Your task to perform on an android device: turn on the 24-hour format for clock Image 0: 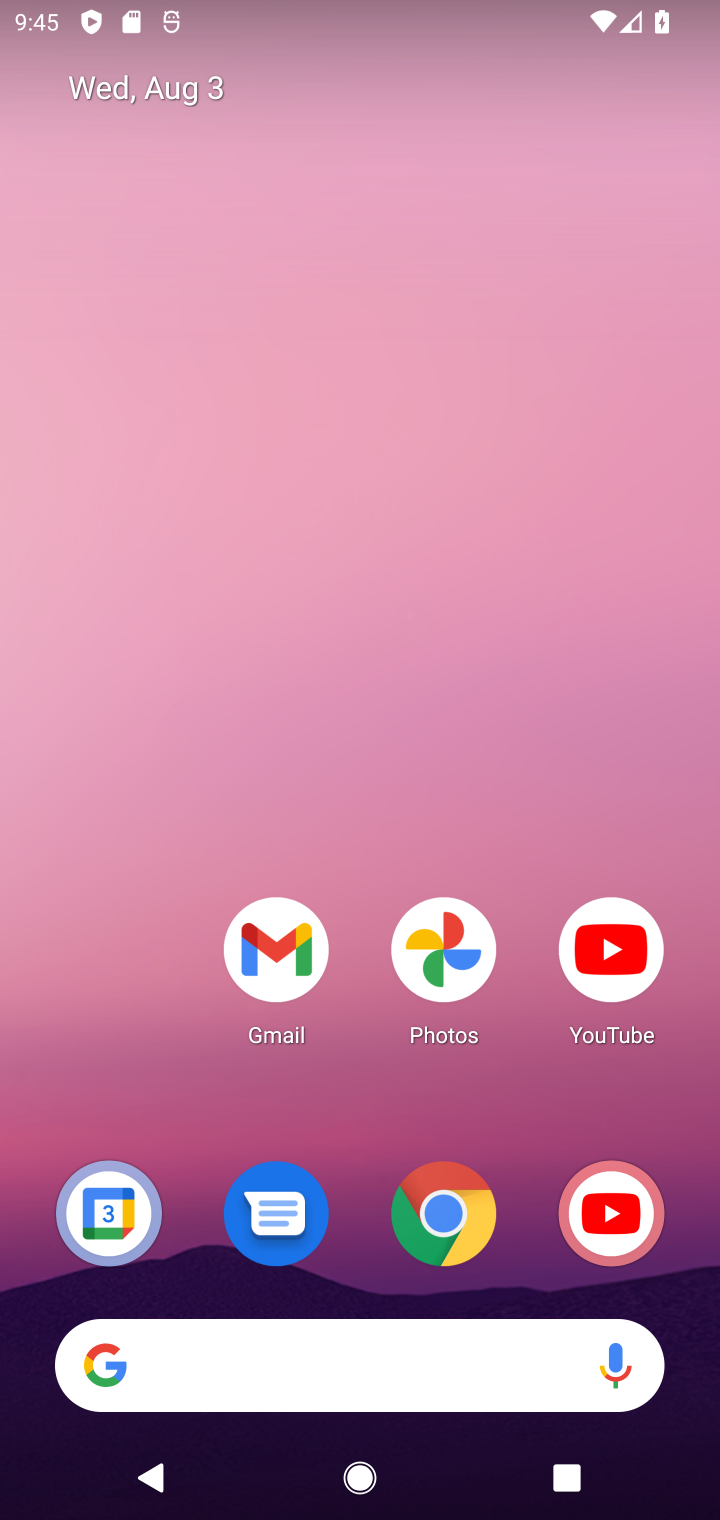
Step 0: drag from (519, 1046) to (516, 443)
Your task to perform on an android device: turn on the 24-hour format for clock Image 1: 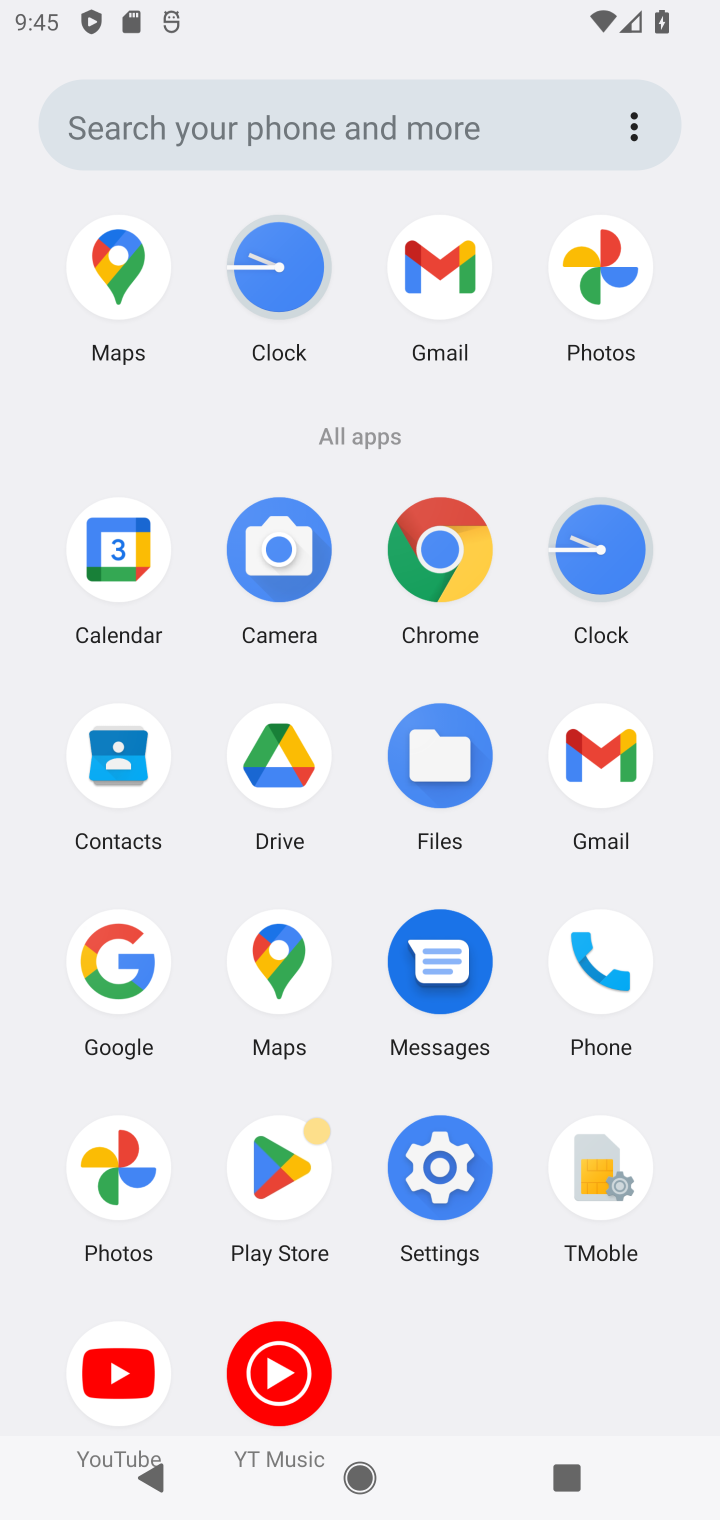
Step 1: click (604, 582)
Your task to perform on an android device: turn on the 24-hour format for clock Image 2: 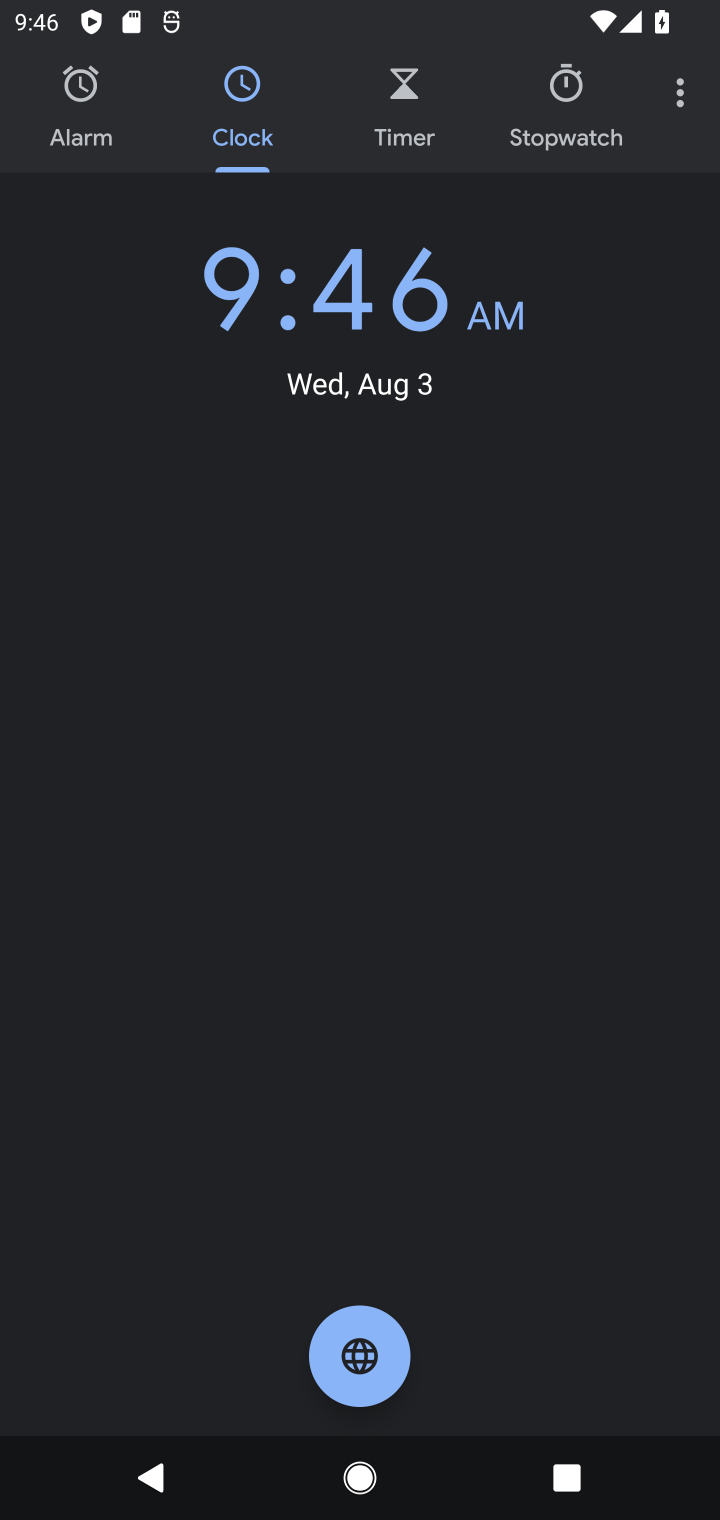
Step 2: click (689, 106)
Your task to perform on an android device: turn on the 24-hour format for clock Image 3: 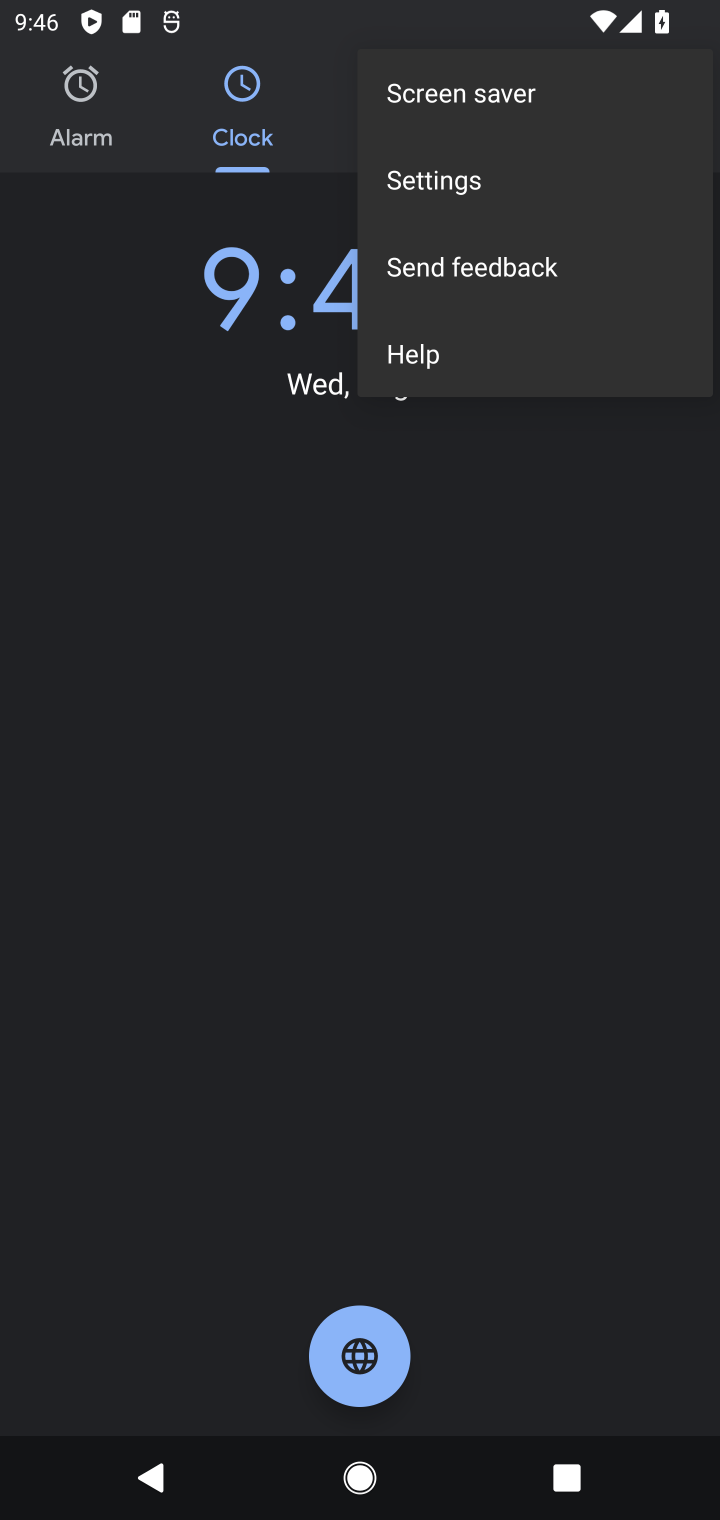
Step 3: click (500, 195)
Your task to perform on an android device: turn on the 24-hour format for clock Image 4: 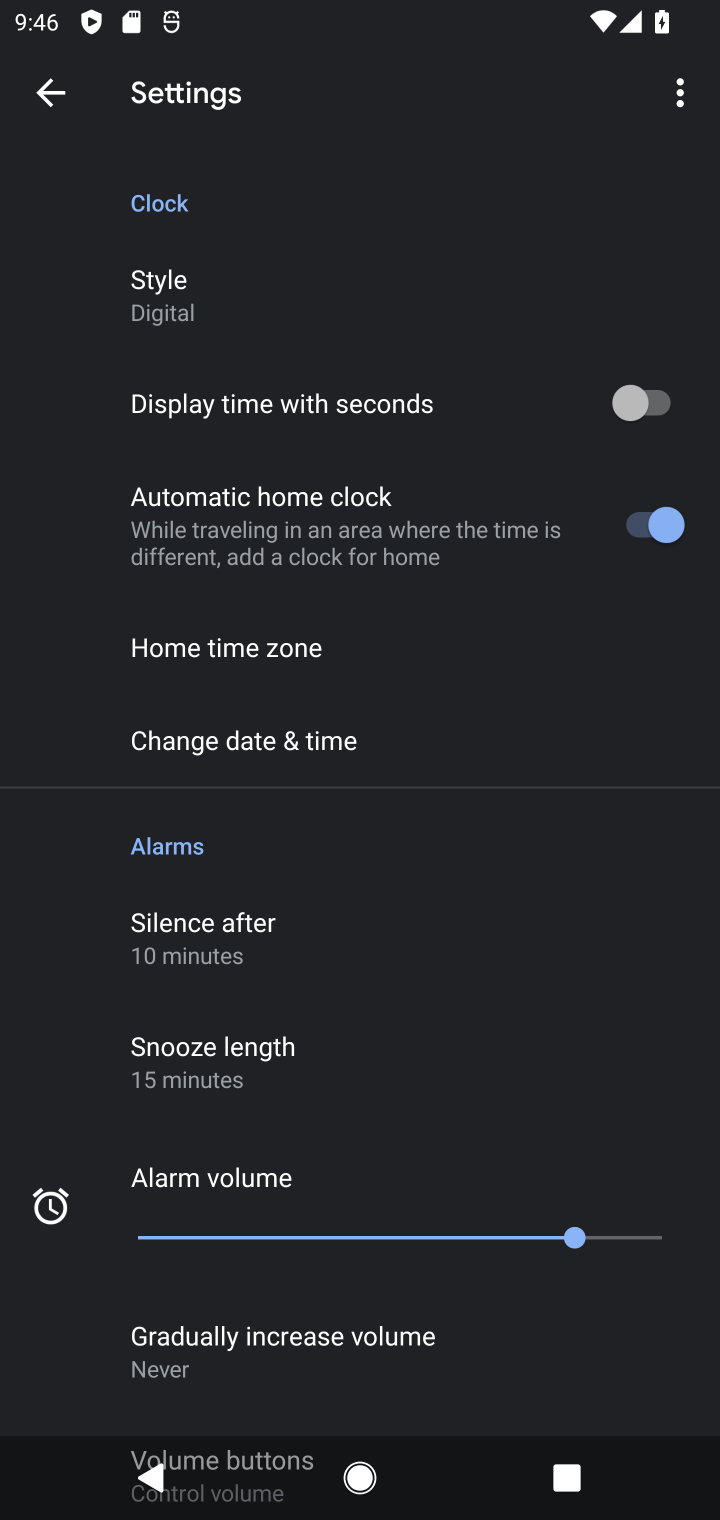
Step 4: click (258, 758)
Your task to perform on an android device: turn on the 24-hour format for clock Image 5: 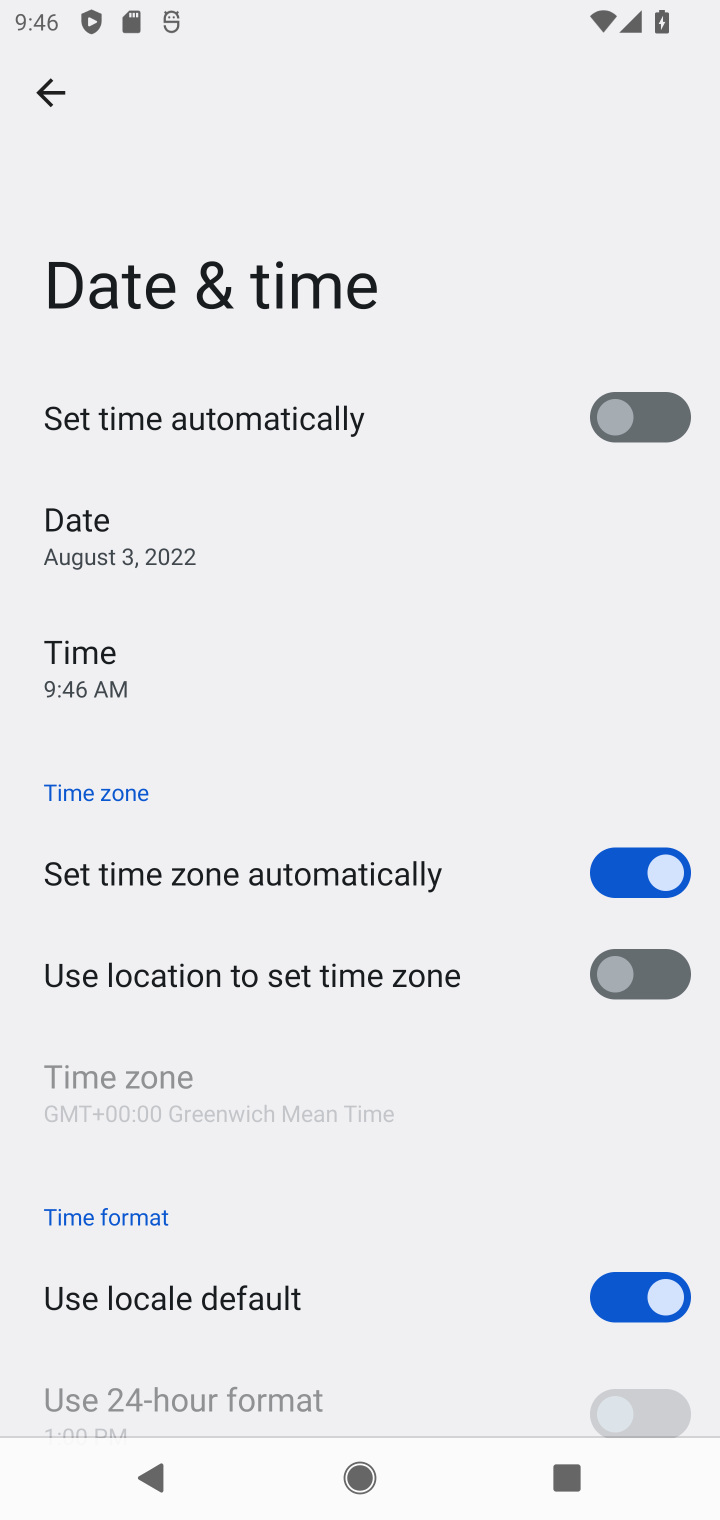
Step 5: drag from (421, 1167) to (374, 396)
Your task to perform on an android device: turn on the 24-hour format for clock Image 6: 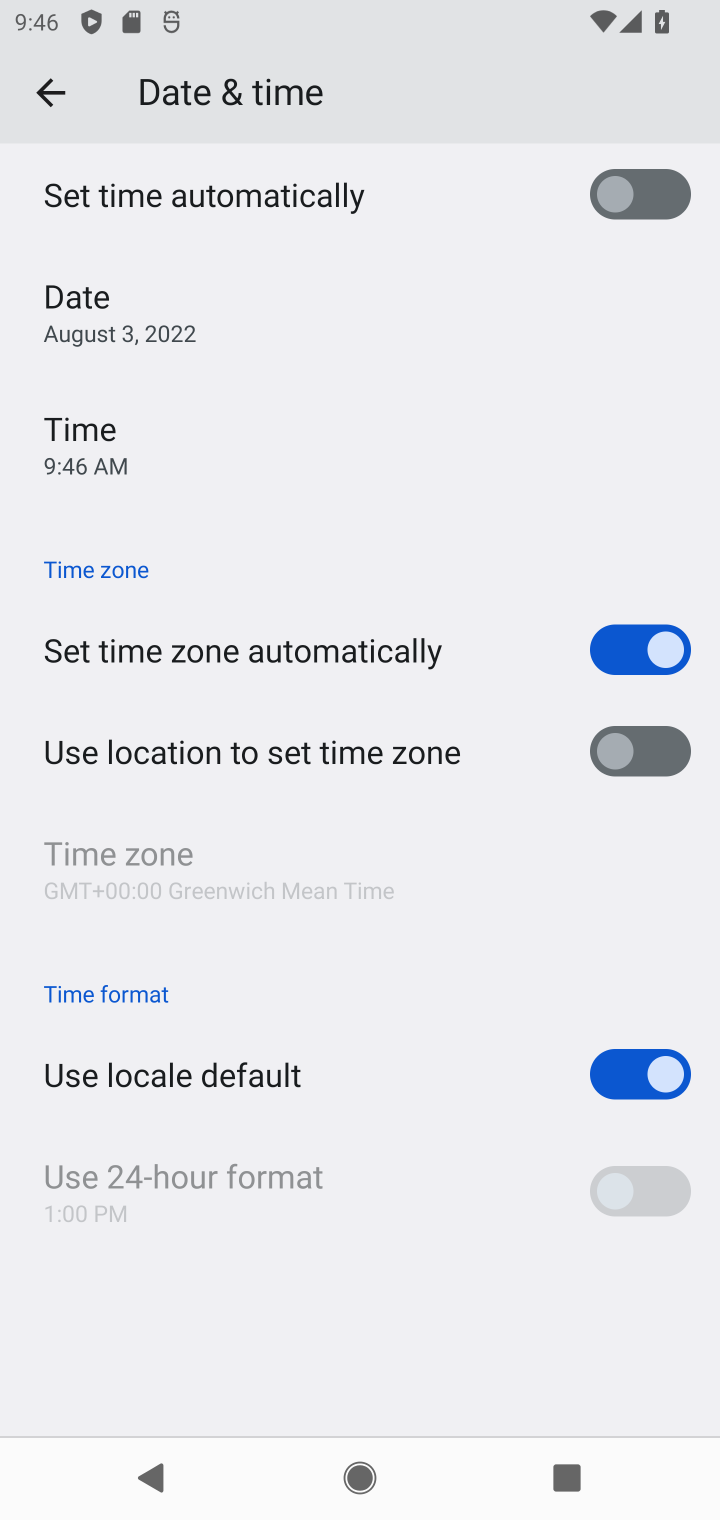
Step 6: click (662, 1088)
Your task to perform on an android device: turn on the 24-hour format for clock Image 7: 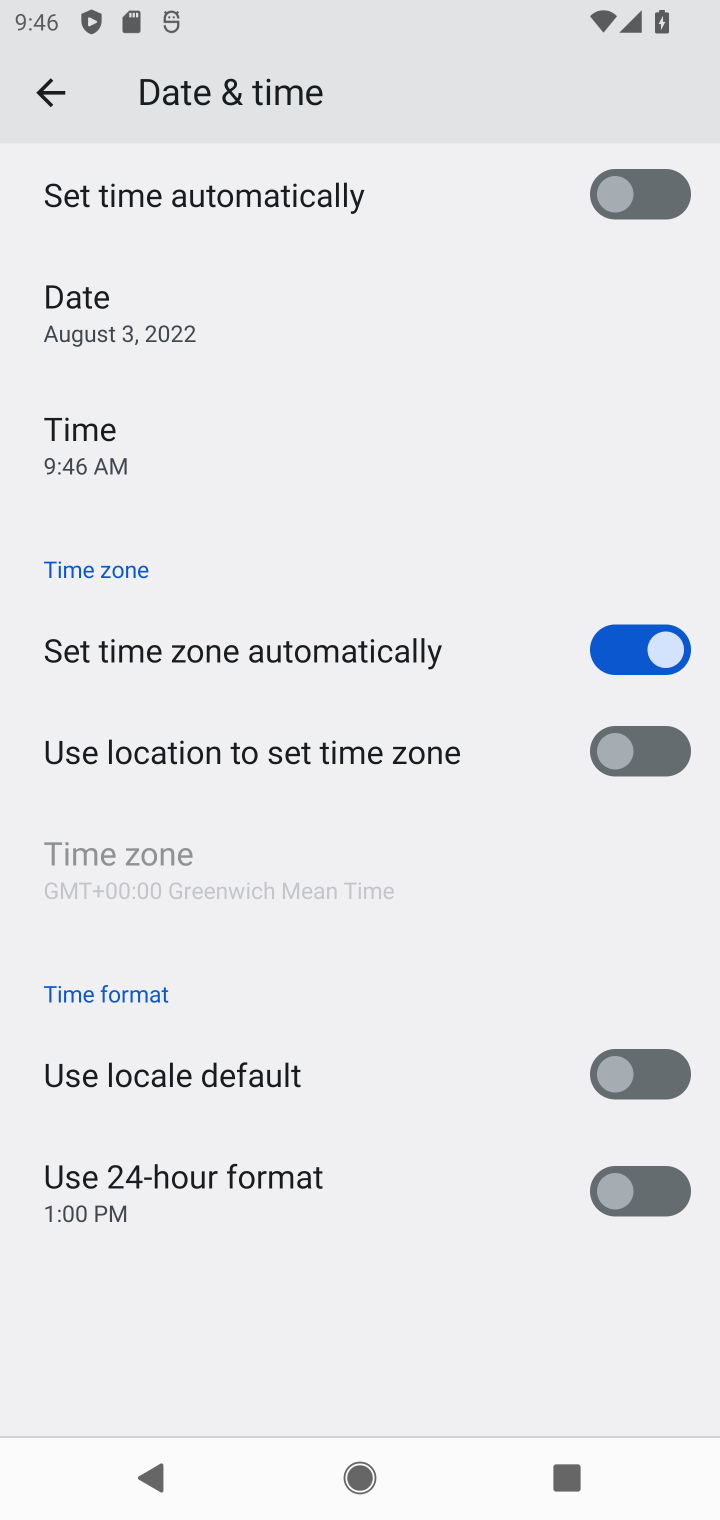
Step 7: click (635, 1200)
Your task to perform on an android device: turn on the 24-hour format for clock Image 8: 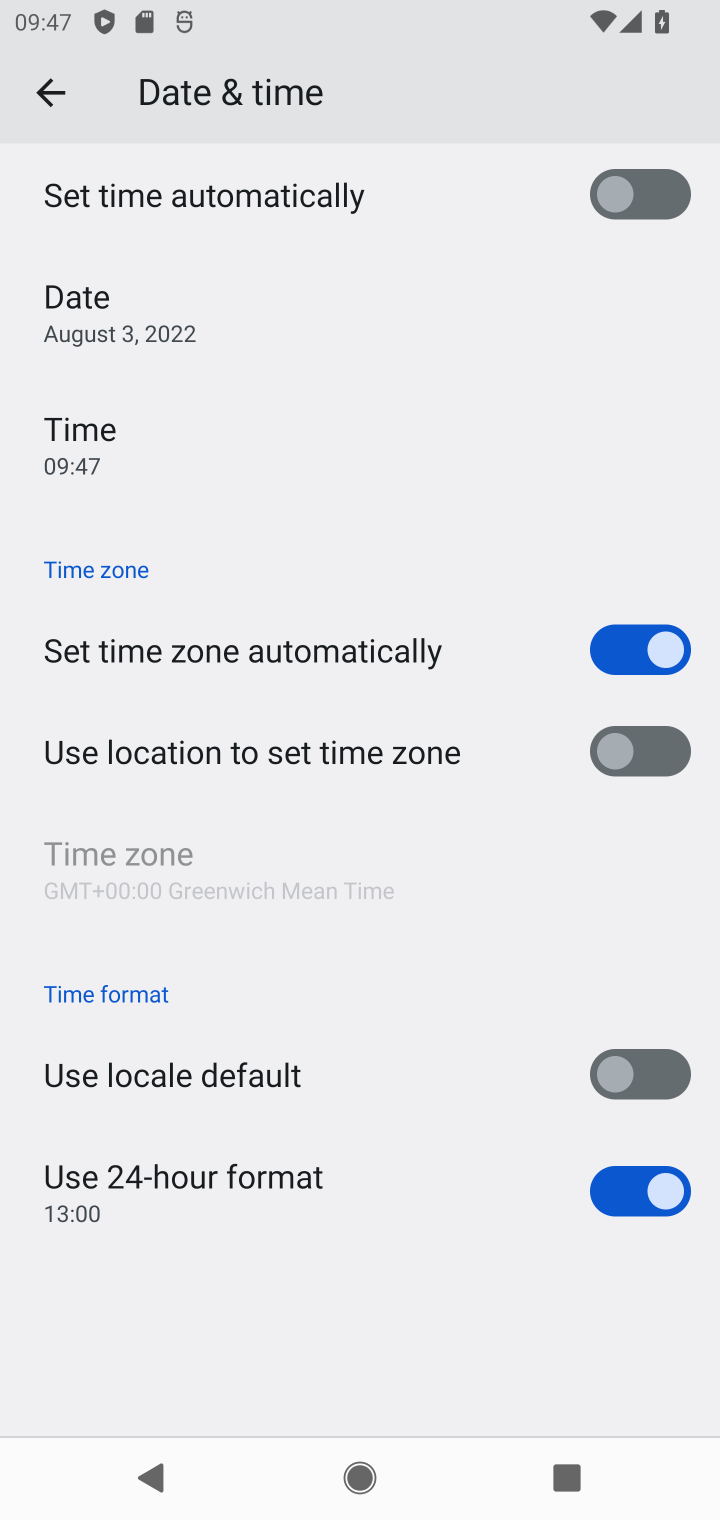
Step 8: task complete